Your task to perform on an android device: Go to calendar. Show me events next week Image 0: 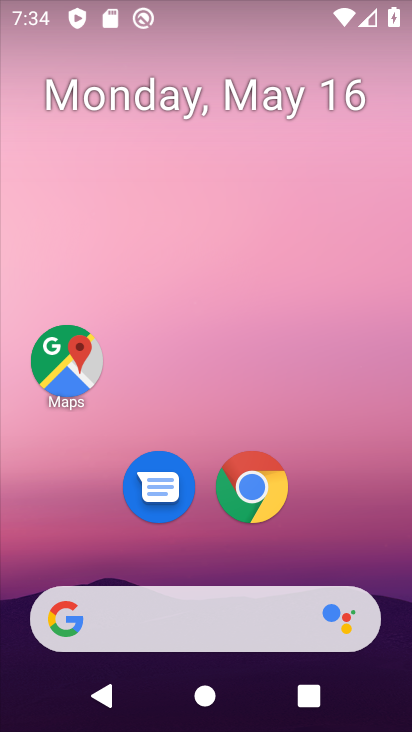
Step 0: drag from (321, 541) to (334, 89)
Your task to perform on an android device: Go to calendar. Show me events next week Image 1: 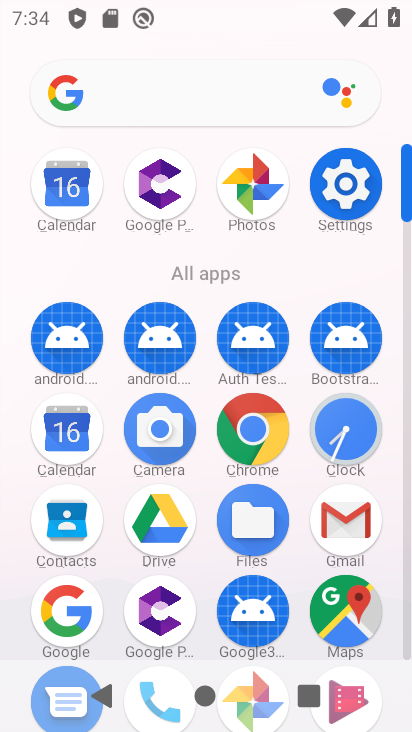
Step 1: click (74, 193)
Your task to perform on an android device: Go to calendar. Show me events next week Image 2: 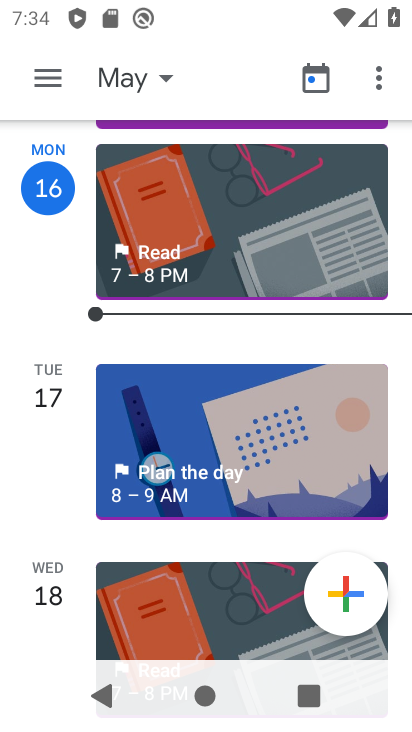
Step 2: click (53, 78)
Your task to perform on an android device: Go to calendar. Show me events next week Image 3: 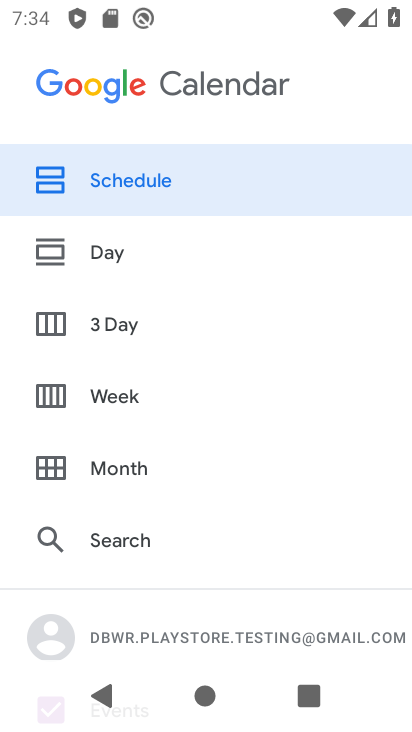
Step 3: click (59, 390)
Your task to perform on an android device: Go to calendar. Show me events next week Image 4: 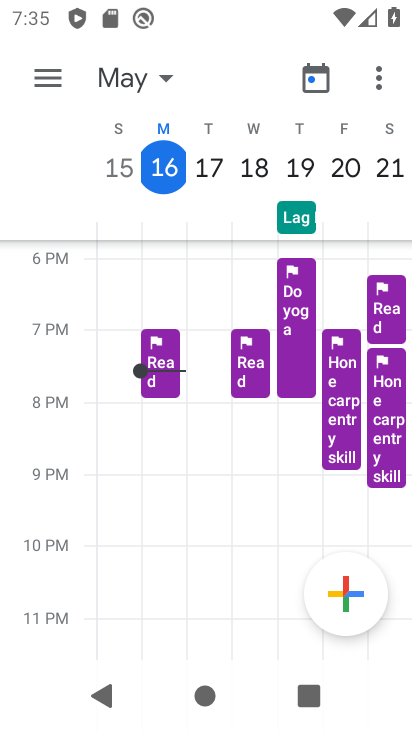
Step 4: task complete